Your task to perform on an android device: Go to network settings Image 0: 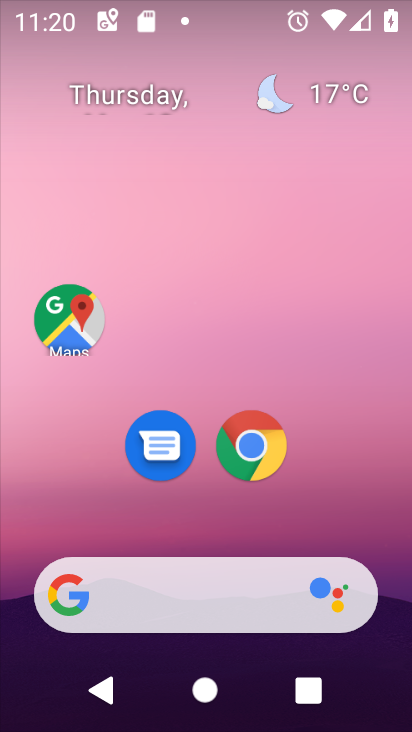
Step 0: drag from (177, 511) to (254, 3)
Your task to perform on an android device: Go to network settings Image 1: 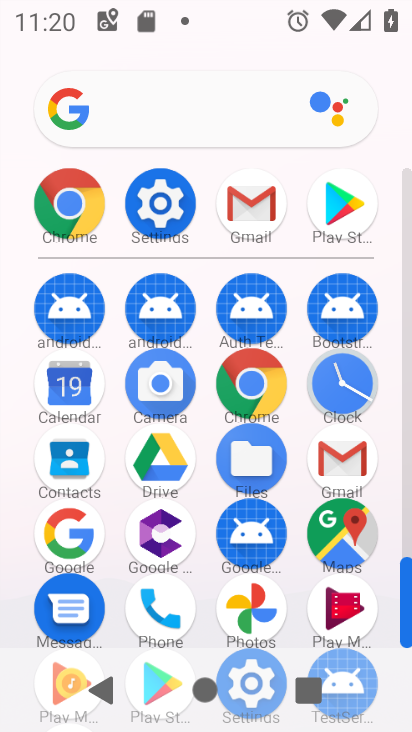
Step 1: click (152, 221)
Your task to perform on an android device: Go to network settings Image 2: 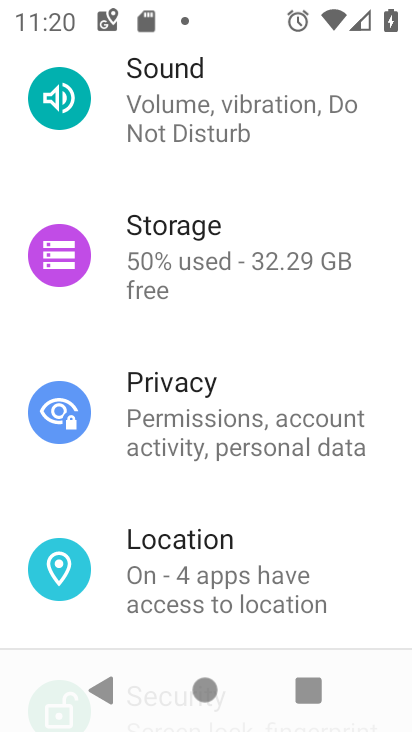
Step 2: drag from (296, 197) to (287, 597)
Your task to perform on an android device: Go to network settings Image 3: 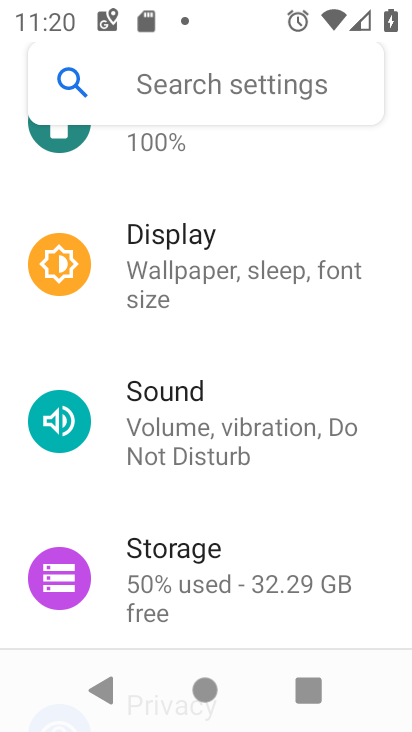
Step 3: drag from (273, 240) to (263, 598)
Your task to perform on an android device: Go to network settings Image 4: 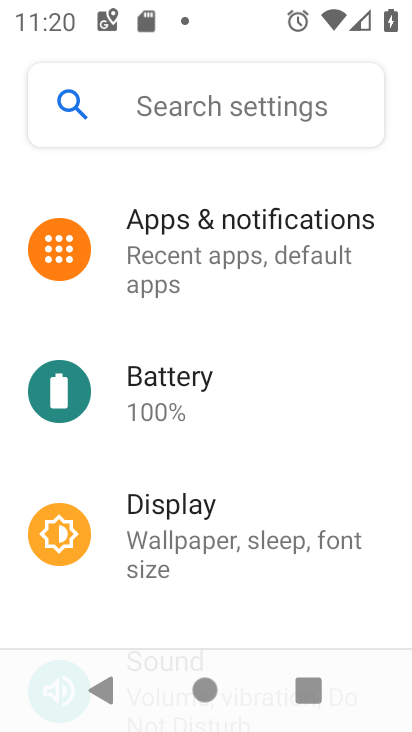
Step 4: drag from (272, 273) to (272, 655)
Your task to perform on an android device: Go to network settings Image 5: 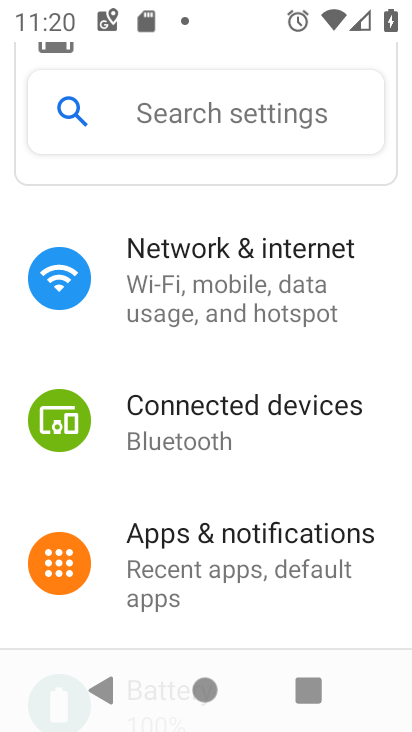
Step 5: click (255, 266)
Your task to perform on an android device: Go to network settings Image 6: 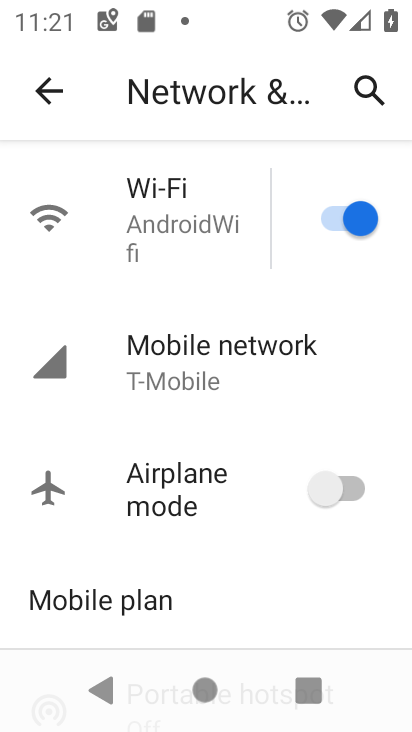
Step 6: task complete